Your task to perform on an android device: Search for pizza restaurants on Maps Image 0: 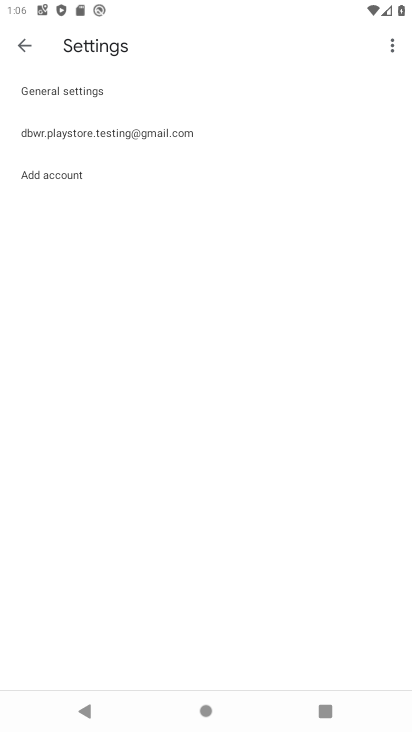
Step 0: press home button
Your task to perform on an android device: Search for pizza restaurants on Maps Image 1: 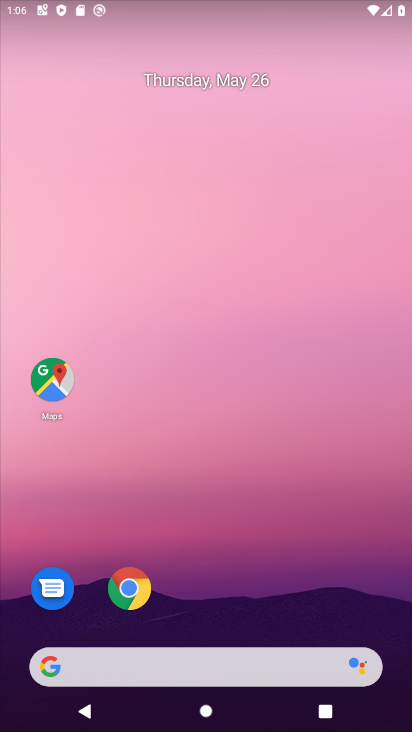
Step 1: click (54, 369)
Your task to perform on an android device: Search for pizza restaurants on Maps Image 2: 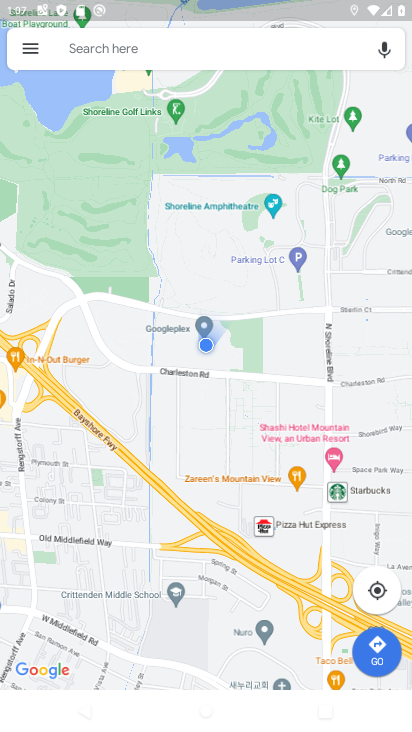
Step 2: click (93, 41)
Your task to perform on an android device: Search for pizza restaurants on Maps Image 3: 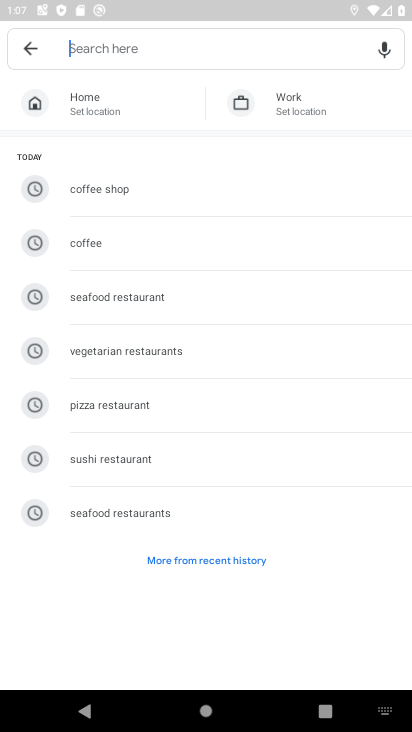
Step 3: type "pizza restaurants"
Your task to perform on an android device: Search for pizza restaurants on Maps Image 4: 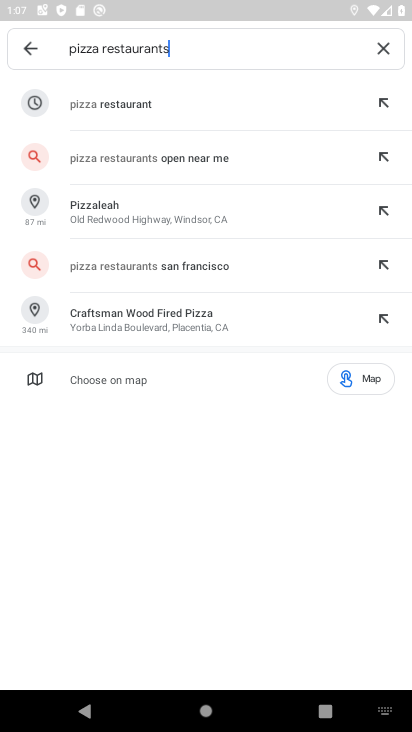
Step 4: click (113, 102)
Your task to perform on an android device: Search for pizza restaurants on Maps Image 5: 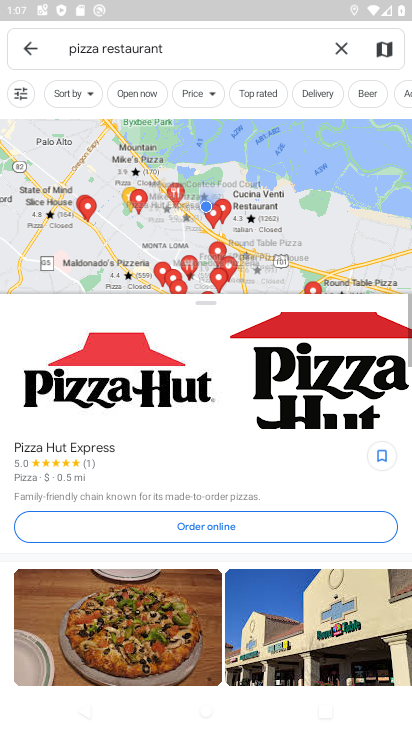
Step 5: task complete